Your task to perform on an android device: turn off improve location accuracy Image 0: 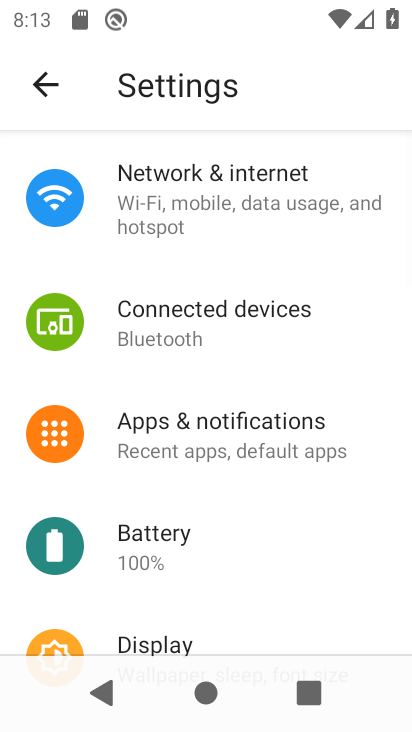
Step 0: drag from (216, 551) to (210, 445)
Your task to perform on an android device: turn off improve location accuracy Image 1: 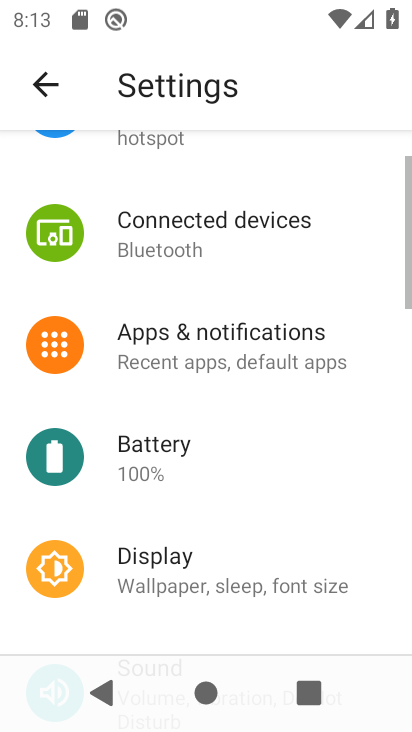
Step 1: drag from (213, 589) to (230, 452)
Your task to perform on an android device: turn off improve location accuracy Image 2: 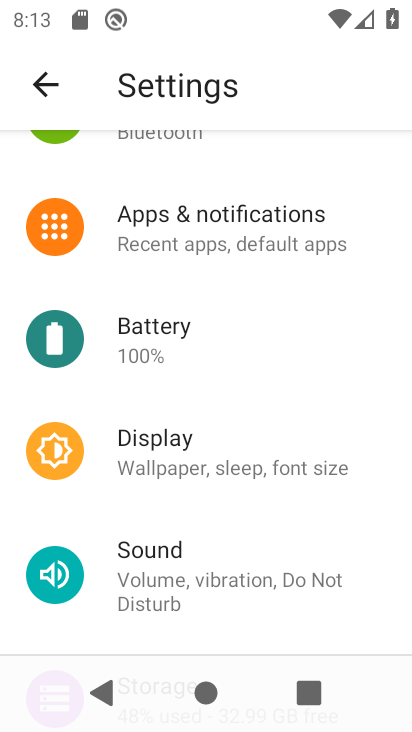
Step 2: drag from (224, 589) to (225, 470)
Your task to perform on an android device: turn off improve location accuracy Image 3: 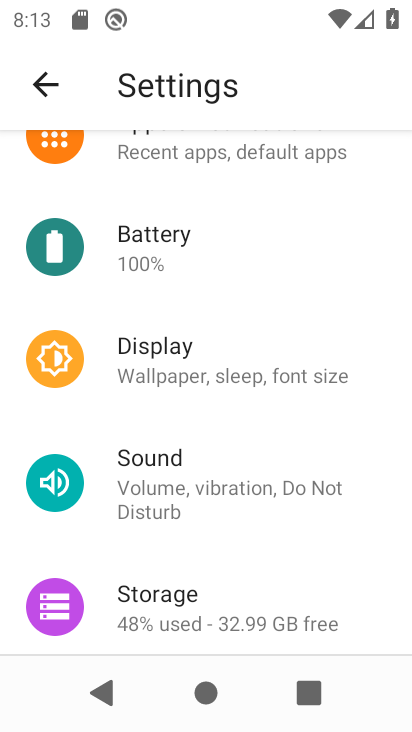
Step 3: drag from (212, 562) to (225, 470)
Your task to perform on an android device: turn off improve location accuracy Image 4: 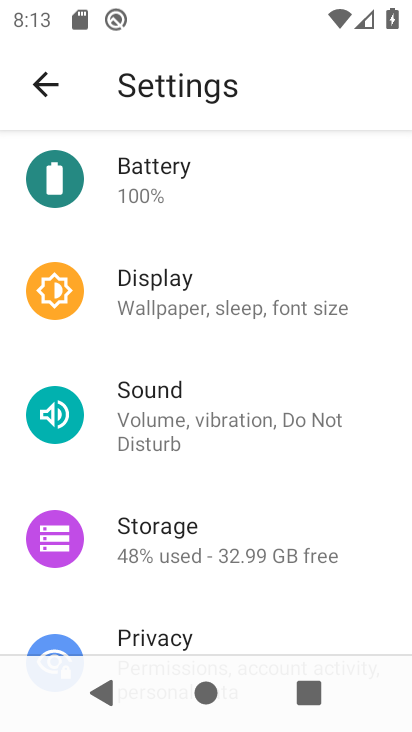
Step 4: drag from (184, 568) to (200, 433)
Your task to perform on an android device: turn off improve location accuracy Image 5: 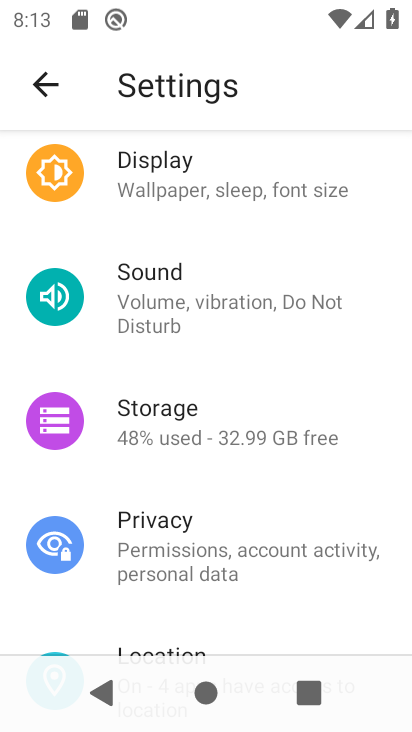
Step 5: drag from (210, 572) to (265, 396)
Your task to perform on an android device: turn off improve location accuracy Image 6: 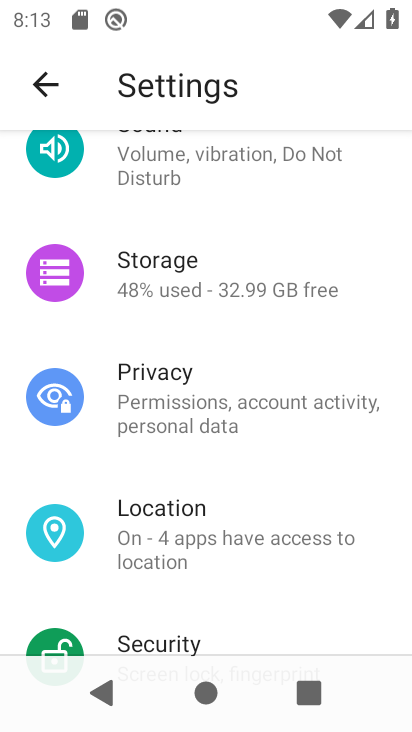
Step 6: click (167, 517)
Your task to perform on an android device: turn off improve location accuracy Image 7: 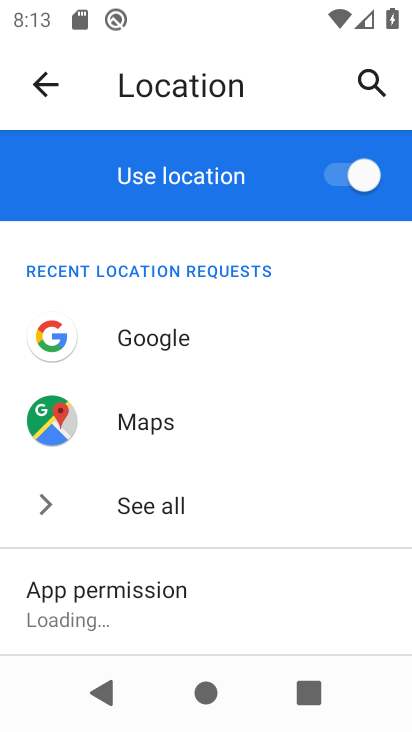
Step 7: drag from (148, 581) to (197, 355)
Your task to perform on an android device: turn off improve location accuracy Image 8: 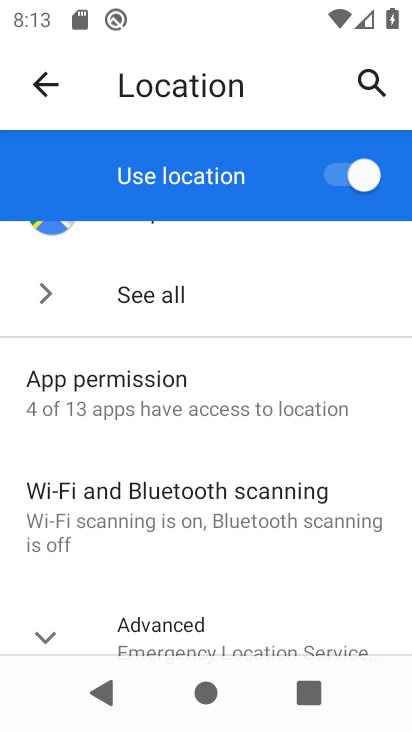
Step 8: drag from (154, 513) to (167, 447)
Your task to perform on an android device: turn off improve location accuracy Image 9: 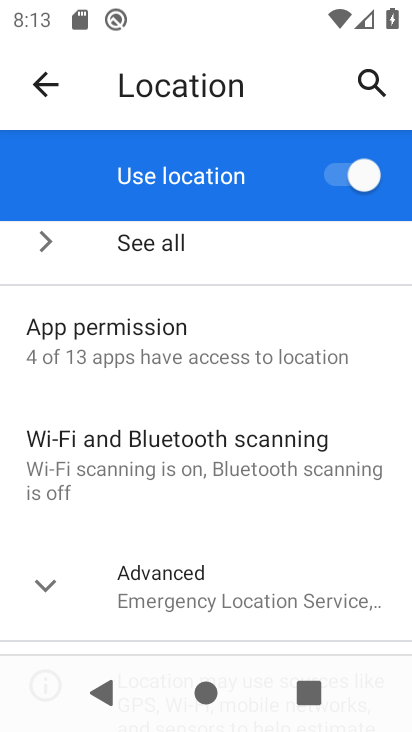
Step 9: click (142, 610)
Your task to perform on an android device: turn off improve location accuracy Image 10: 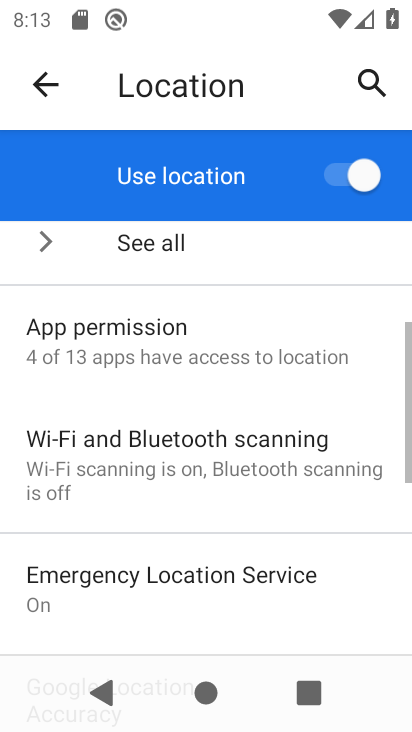
Step 10: drag from (142, 610) to (199, 343)
Your task to perform on an android device: turn off improve location accuracy Image 11: 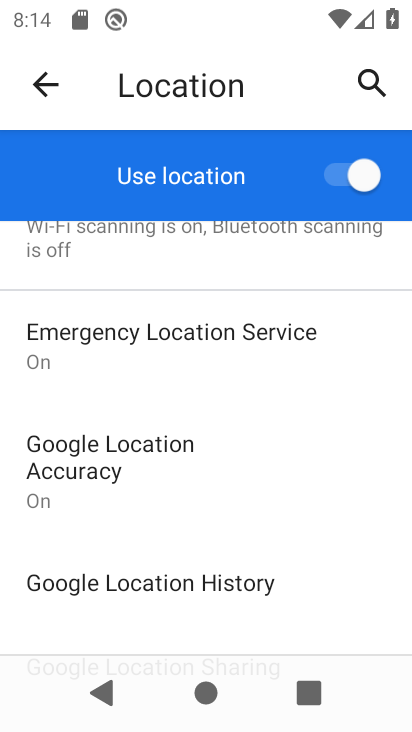
Step 11: click (140, 457)
Your task to perform on an android device: turn off improve location accuracy Image 12: 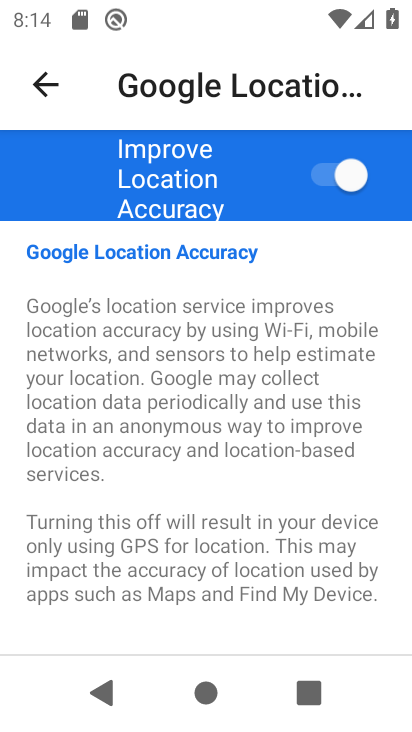
Step 12: click (341, 173)
Your task to perform on an android device: turn off improve location accuracy Image 13: 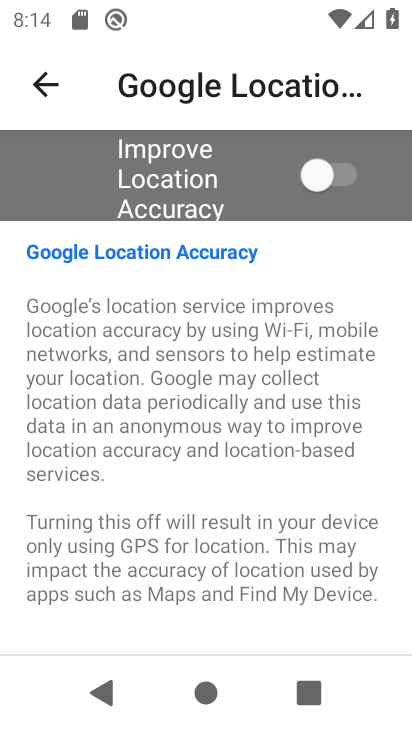
Step 13: task complete